Your task to perform on an android device: turn off airplane mode Image 0: 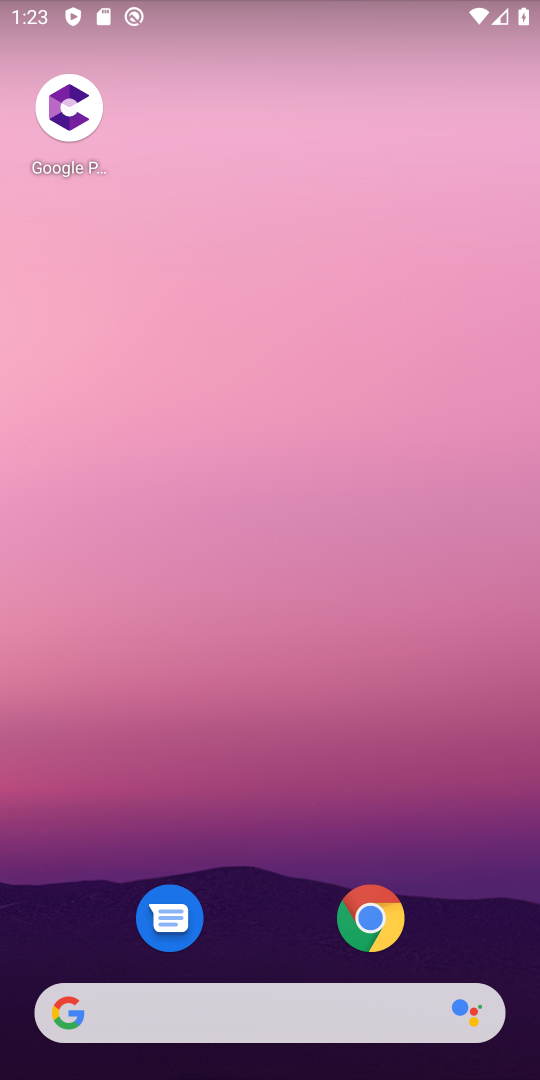
Step 0: drag from (236, 1012) to (215, 331)
Your task to perform on an android device: turn off airplane mode Image 1: 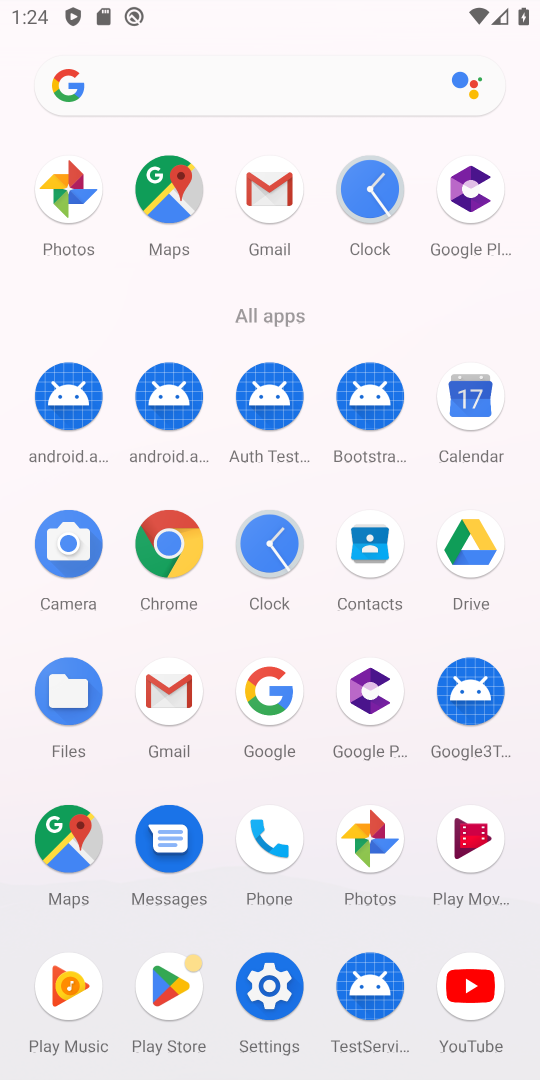
Step 1: click (255, 991)
Your task to perform on an android device: turn off airplane mode Image 2: 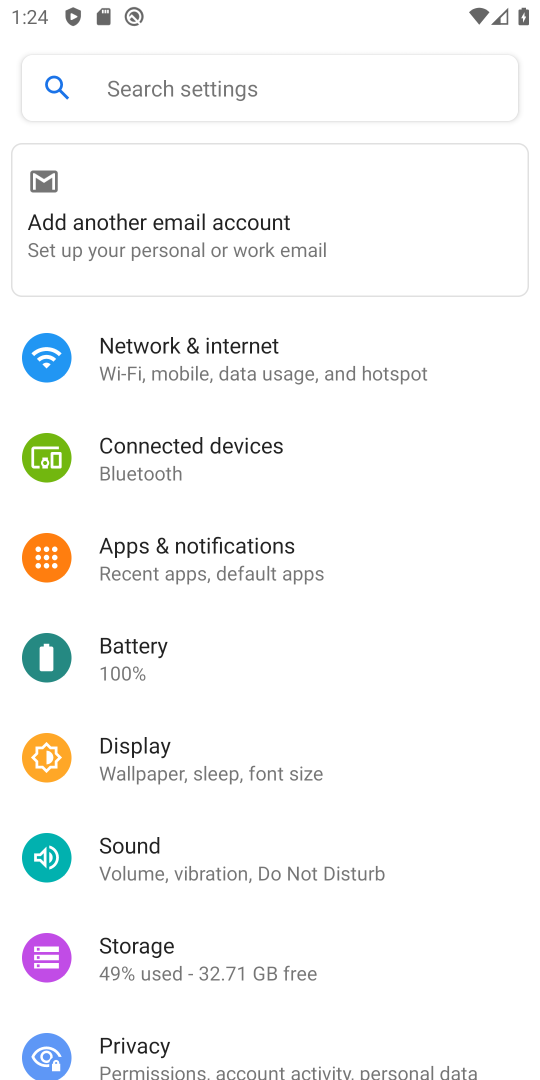
Step 2: click (211, 345)
Your task to perform on an android device: turn off airplane mode Image 3: 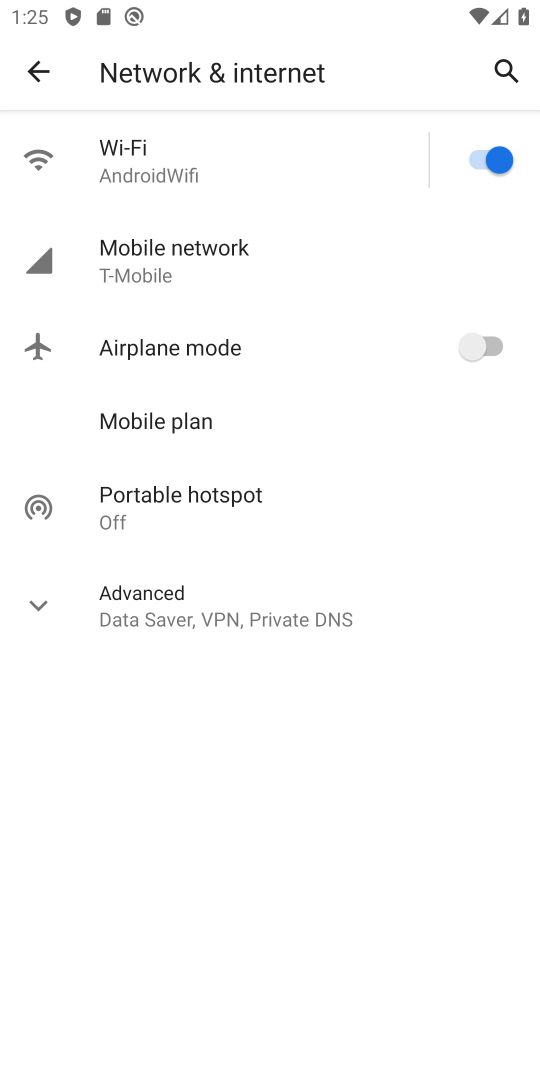
Step 3: task complete